Your task to perform on an android device: Open the Play Movies app and select the watchlist tab. Image 0: 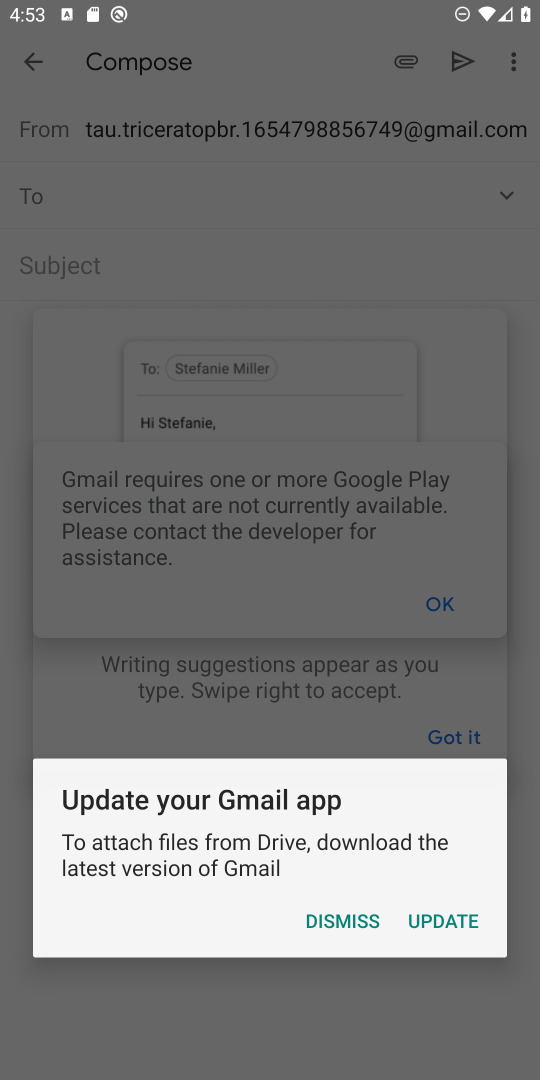
Step 0: press home button
Your task to perform on an android device: Open the Play Movies app and select the watchlist tab. Image 1: 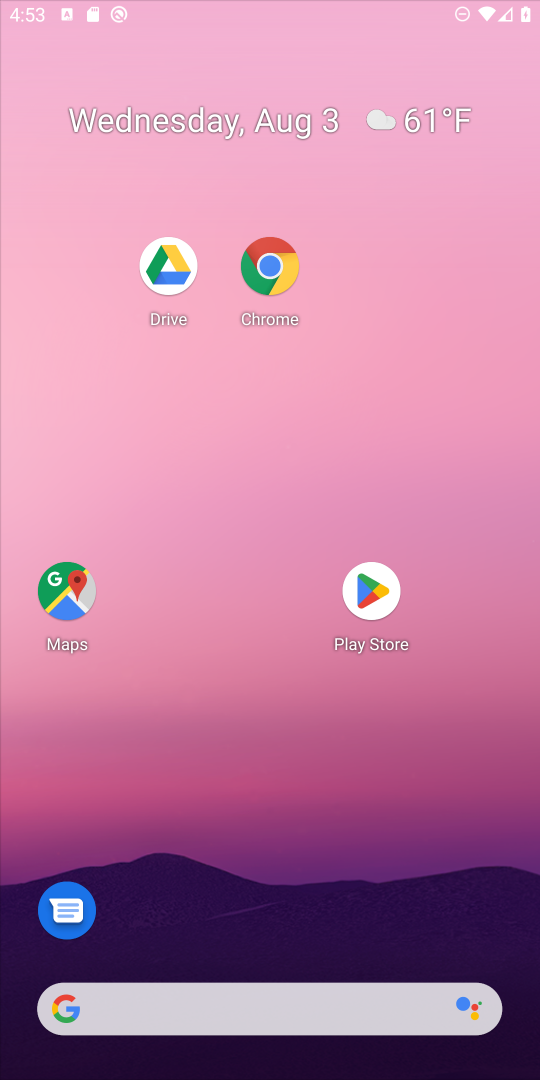
Step 1: drag from (306, 1025) to (358, 17)
Your task to perform on an android device: Open the Play Movies app and select the watchlist tab. Image 2: 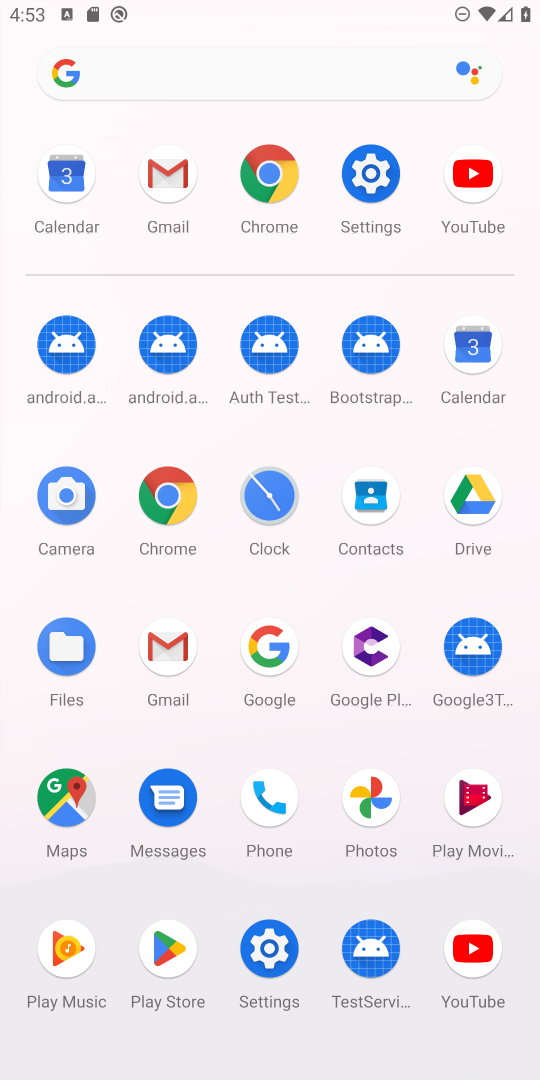
Step 2: click (466, 804)
Your task to perform on an android device: Open the Play Movies app and select the watchlist tab. Image 3: 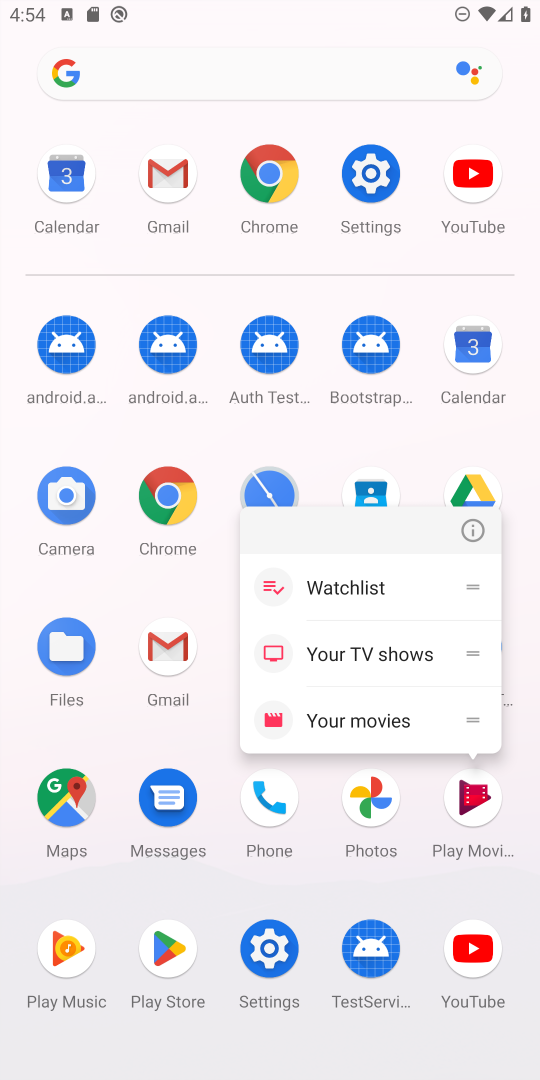
Step 3: click (481, 811)
Your task to perform on an android device: Open the Play Movies app and select the watchlist tab. Image 4: 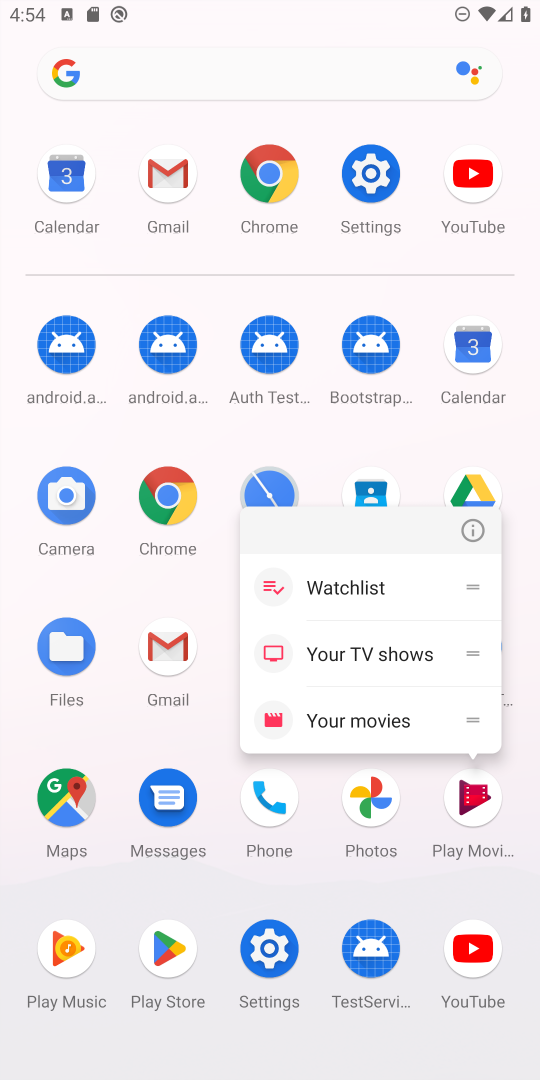
Step 4: click (497, 804)
Your task to perform on an android device: Open the Play Movies app and select the watchlist tab. Image 5: 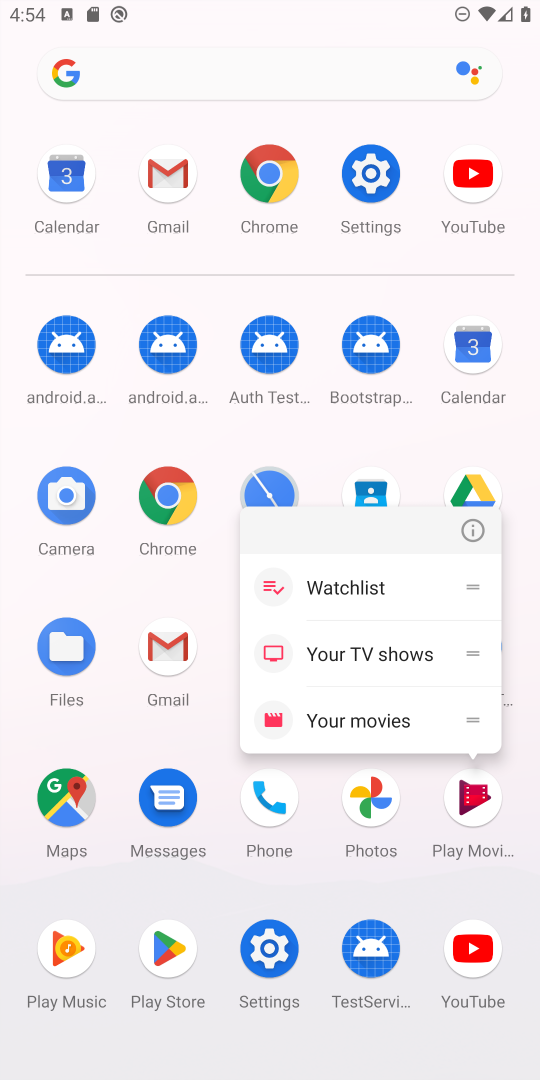
Step 5: click (477, 794)
Your task to perform on an android device: Open the Play Movies app and select the watchlist tab. Image 6: 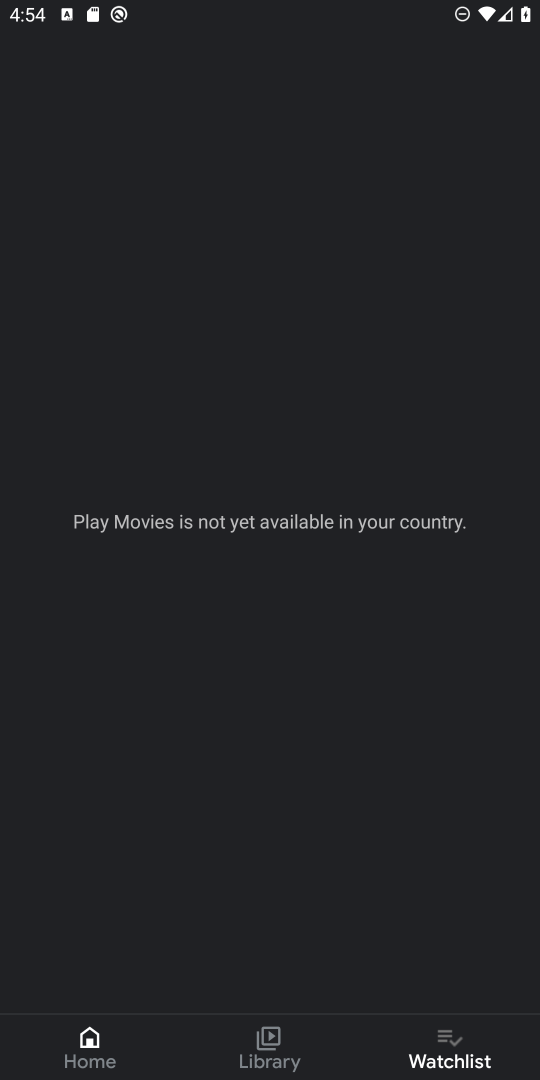
Step 6: task complete